Your task to perform on an android device: Open the web browser Image 0: 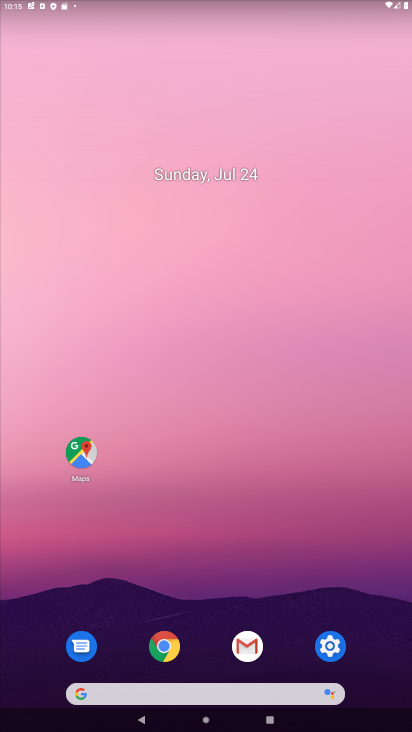
Step 0: click (166, 656)
Your task to perform on an android device: Open the web browser Image 1: 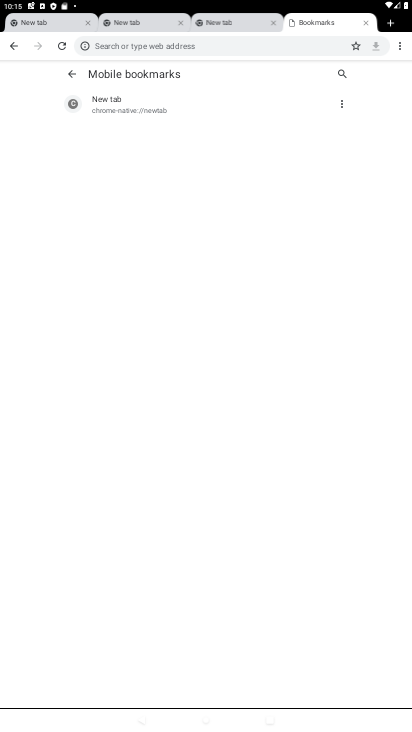
Step 1: click (143, 46)
Your task to perform on an android device: Open the web browser Image 2: 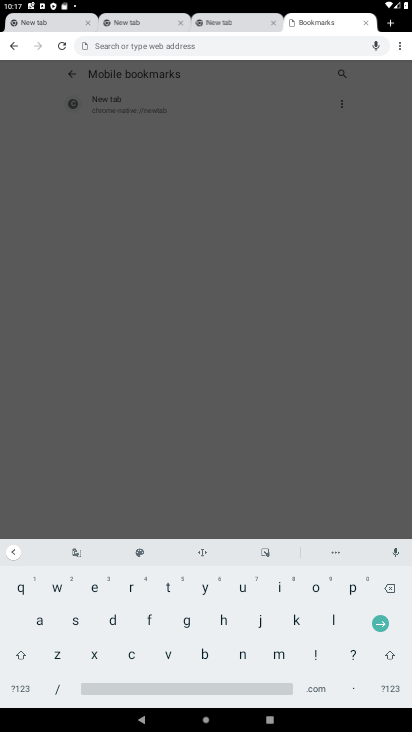
Step 2: task complete